Your task to perform on an android device: set the stopwatch Image 0: 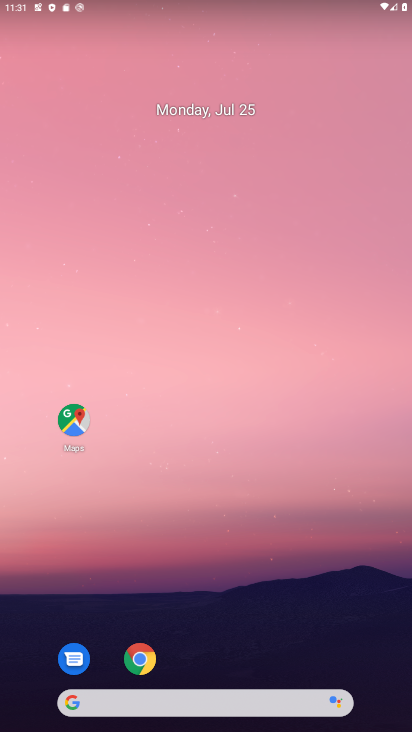
Step 0: drag from (106, 290) to (146, 102)
Your task to perform on an android device: set the stopwatch Image 1: 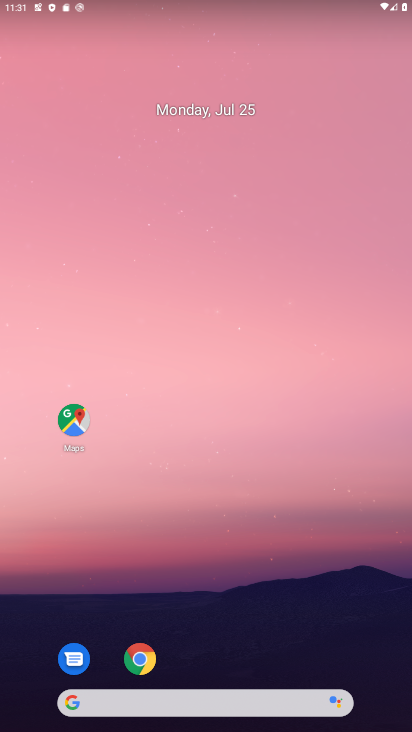
Step 1: drag from (41, 673) to (120, 175)
Your task to perform on an android device: set the stopwatch Image 2: 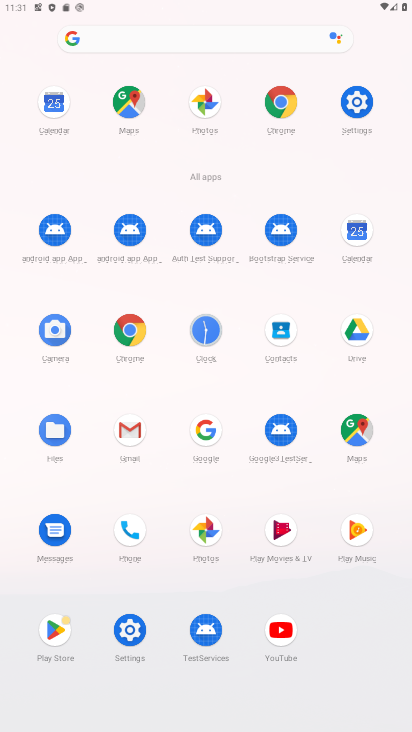
Step 2: click (214, 335)
Your task to perform on an android device: set the stopwatch Image 3: 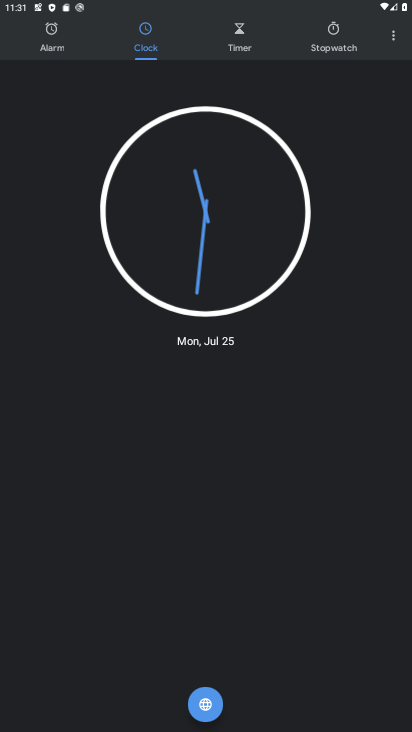
Step 3: click (329, 40)
Your task to perform on an android device: set the stopwatch Image 4: 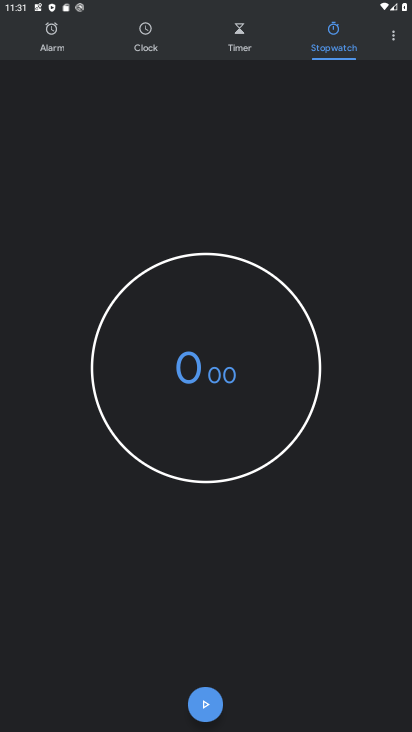
Step 4: click (190, 366)
Your task to perform on an android device: set the stopwatch Image 5: 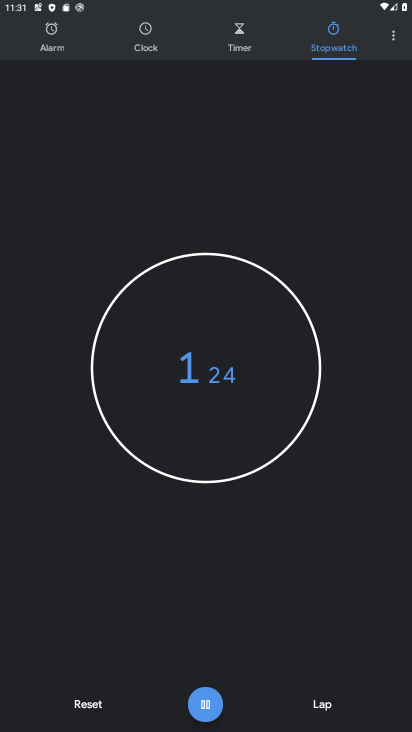
Step 5: click (190, 369)
Your task to perform on an android device: set the stopwatch Image 6: 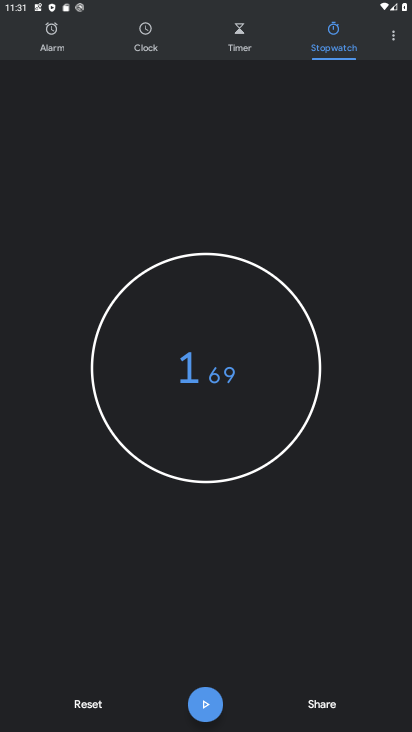
Step 6: task complete